Your task to perform on an android device: Empty the shopping cart on walmart. Image 0: 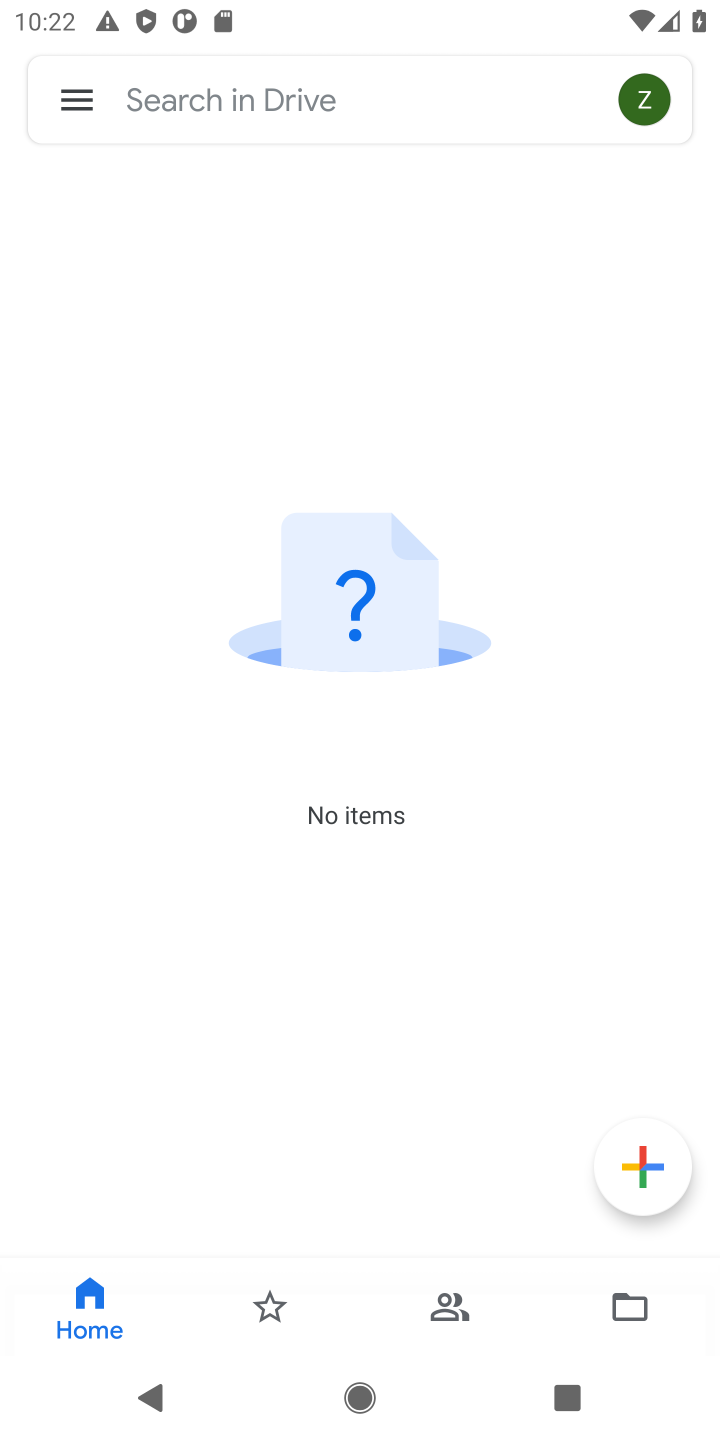
Step 0: press home button
Your task to perform on an android device: Empty the shopping cart on walmart. Image 1: 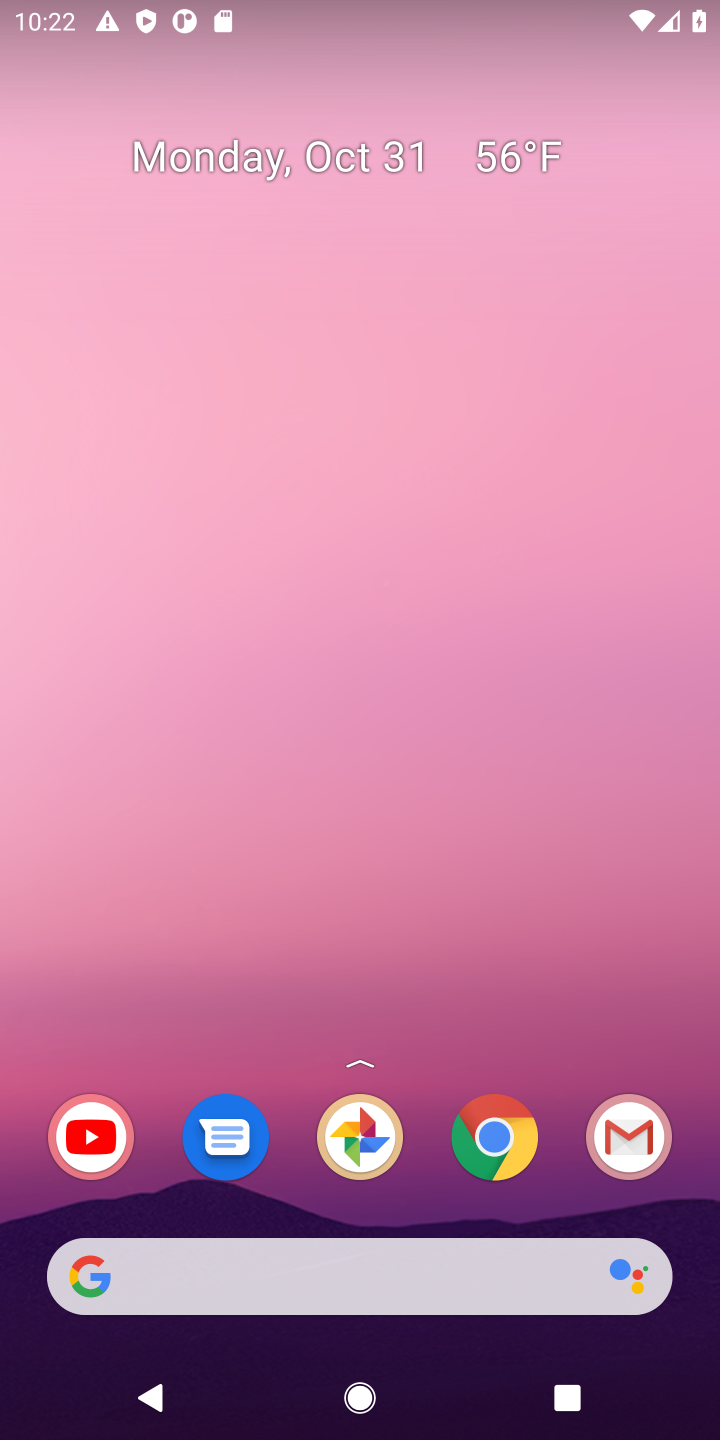
Step 1: click (496, 1140)
Your task to perform on an android device: Empty the shopping cart on walmart. Image 2: 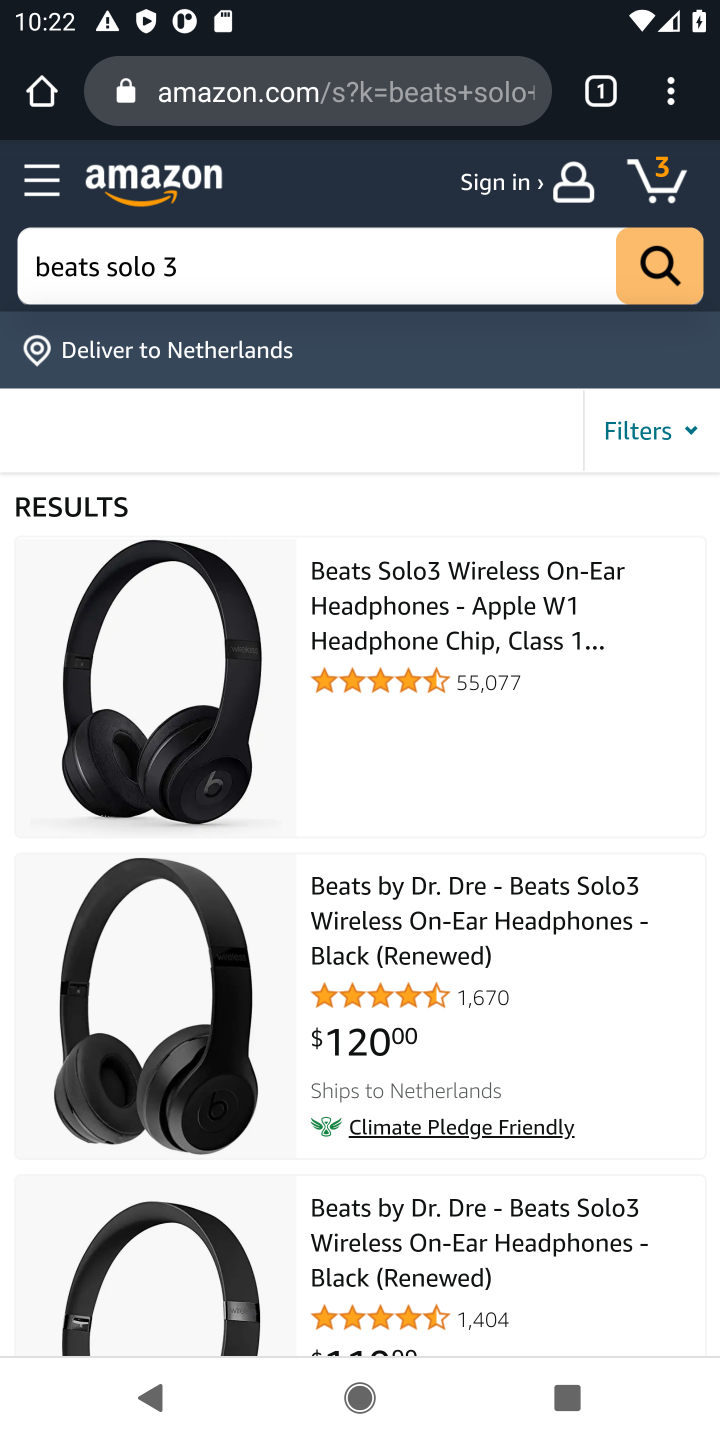
Step 2: click (333, 85)
Your task to perform on an android device: Empty the shopping cart on walmart. Image 3: 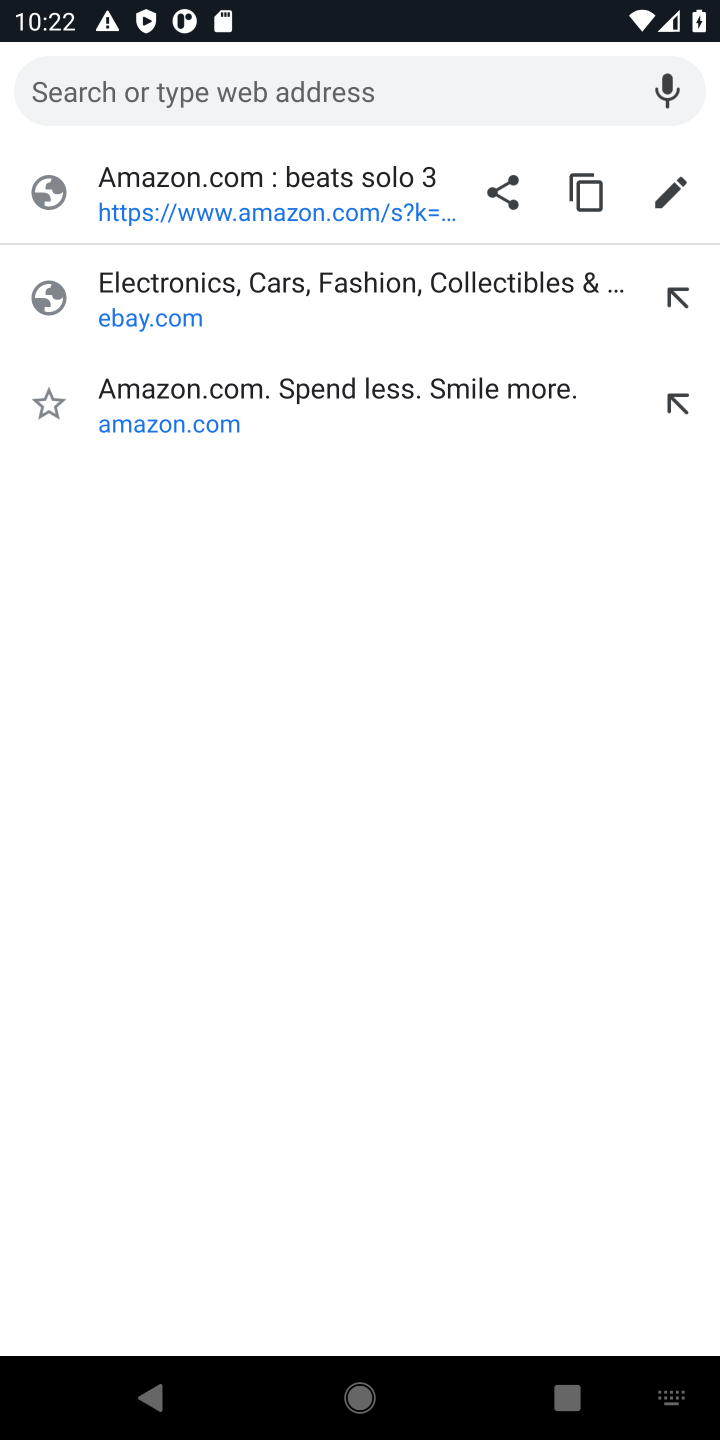
Step 3: type "walmart"
Your task to perform on an android device: Empty the shopping cart on walmart. Image 4: 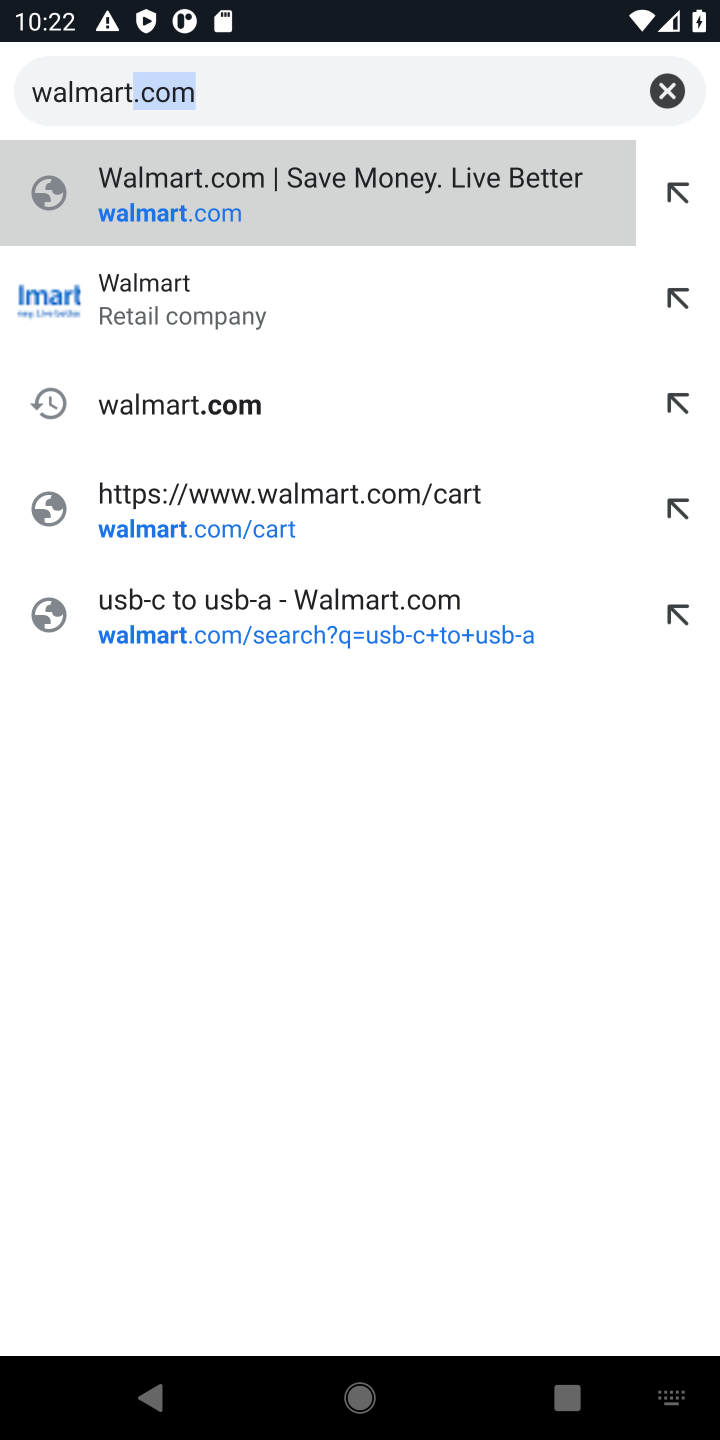
Step 4: click (193, 293)
Your task to perform on an android device: Empty the shopping cart on walmart. Image 5: 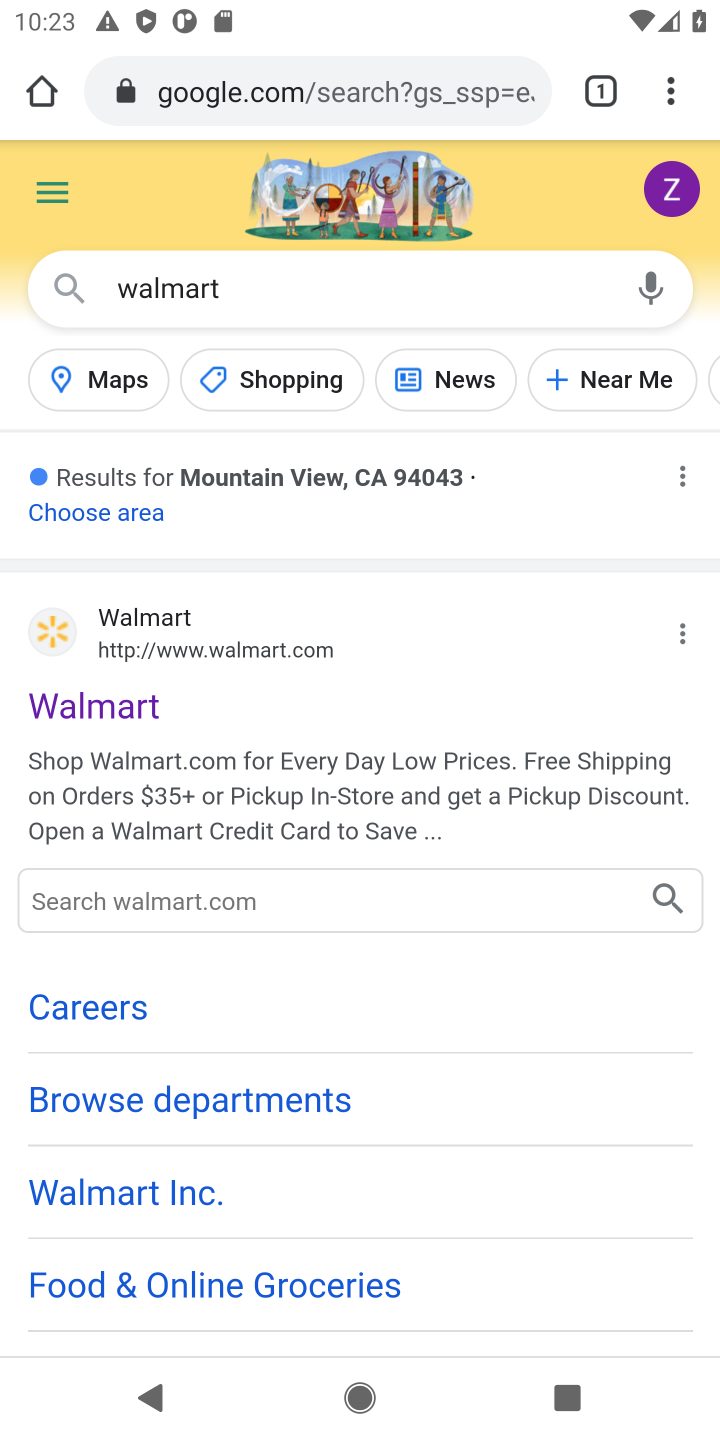
Step 5: click (144, 732)
Your task to perform on an android device: Empty the shopping cart on walmart. Image 6: 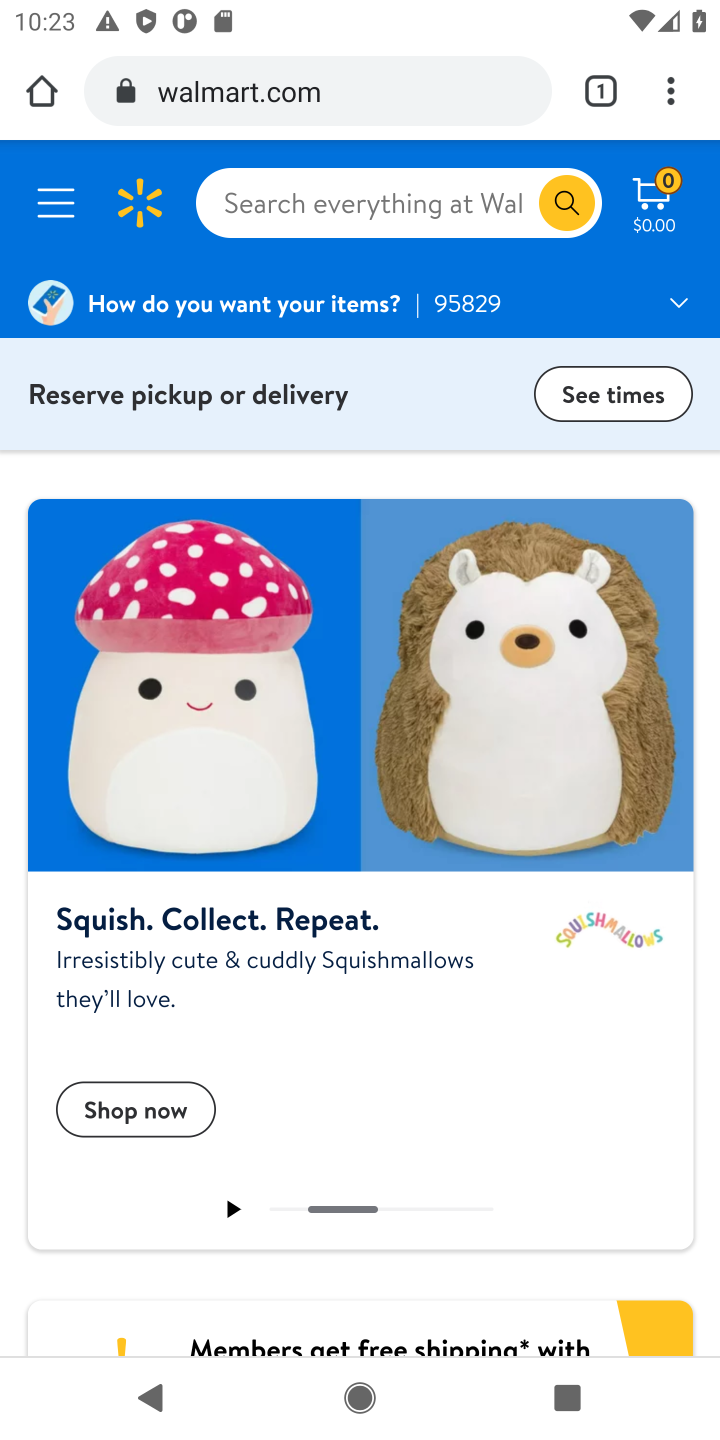
Step 6: click (662, 198)
Your task to perform on an android device: Empty the shopping cart on walmart. Image 7: 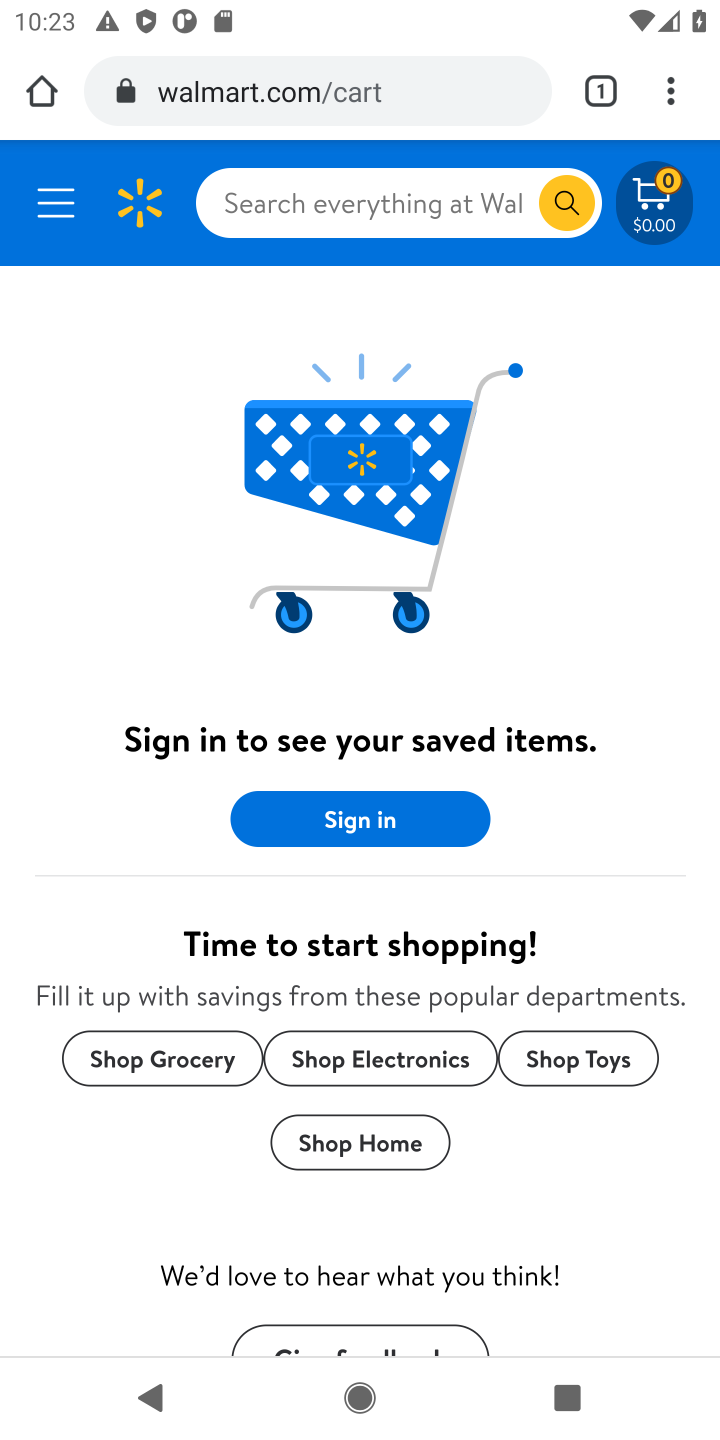
Step 7: task complete